Your task to perform on an android device: check data usage Image 0: 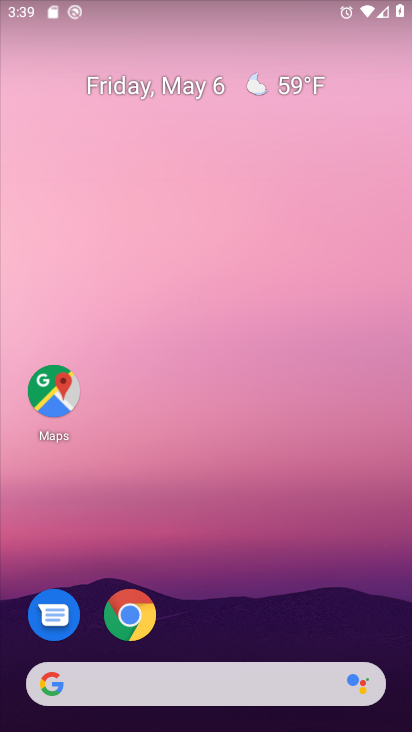
Step 0: drag from (265, 641) to (231, 0)
Your task to perform on an android device: check data usage Image 1: 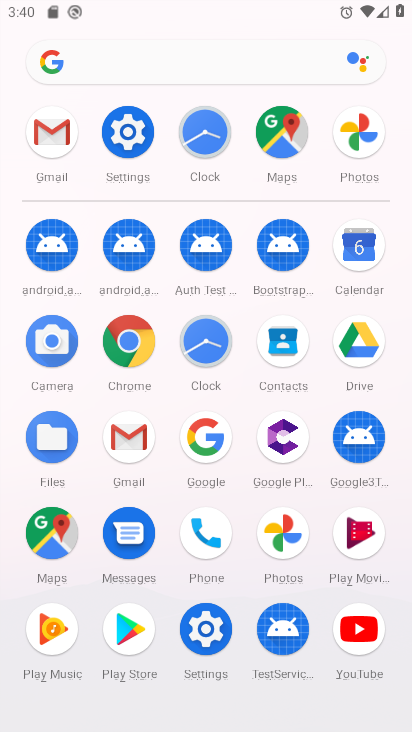
Step 1: click (124, 133)
Your task to perform on an android device: check data usage Image 2: 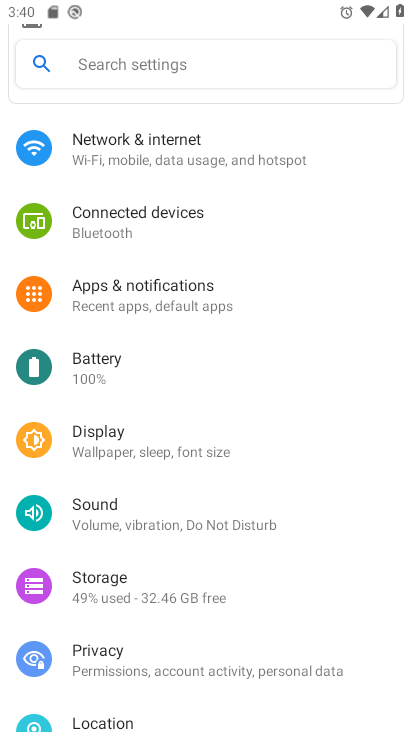
Step 2: click (142, 164)
Your task to perform on an android device: check data usage Image 3: 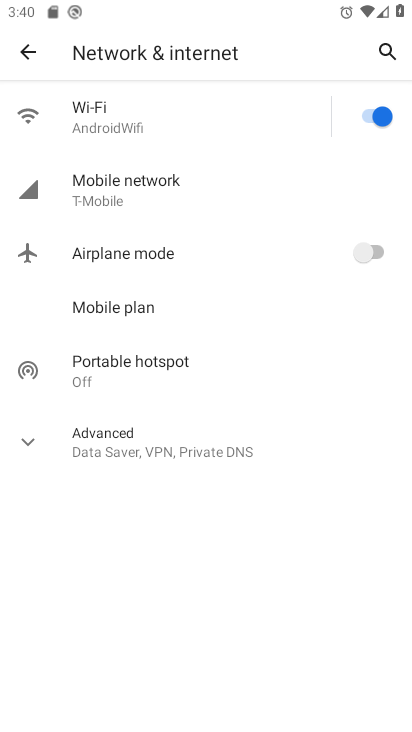
Step 3: click (105, 191)
Your task to perform on an android device: check data usage Image 4: 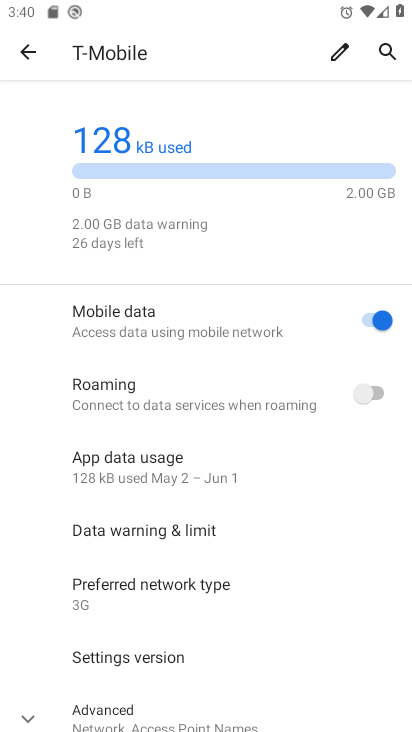
Step 4: click (142, 477)
Your task to perform on an android device: check data usage Image 5: 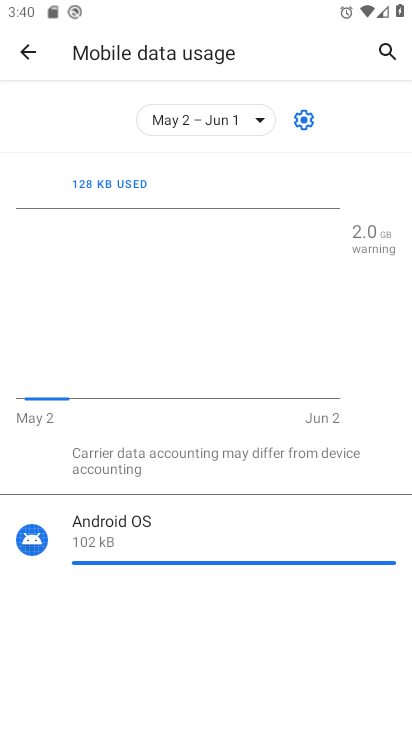
Step 5: task complete